Your task to perform on an android device: turn on notifications settings in the gmail app Image 0: 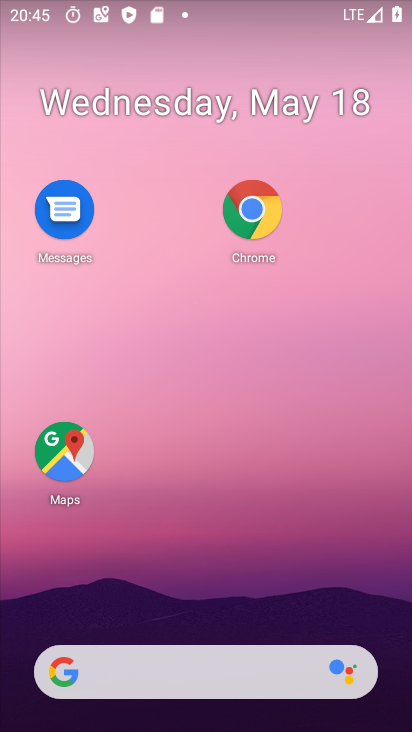
Step 0: drag from (151, 610) to (224, 0)
Your task to perform on an android device: turn on notifications settings in the gmail app Image 1: 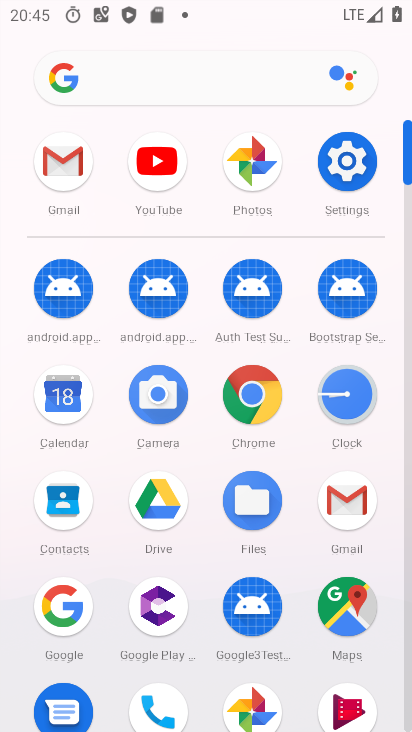
Step 1: click (353, 506)
Your task to perform on an android device: turn on notifications settings in the gmail app Image 2: 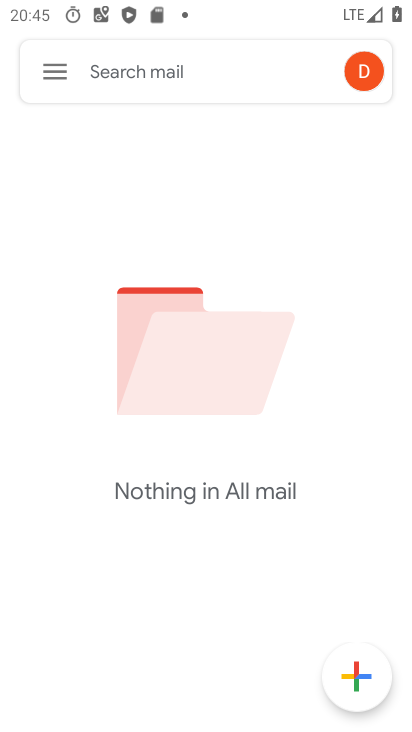
Step 2: click (52, 88)
Your task to perform on an android device: turn on notifications settings in the gmail app Image 3: 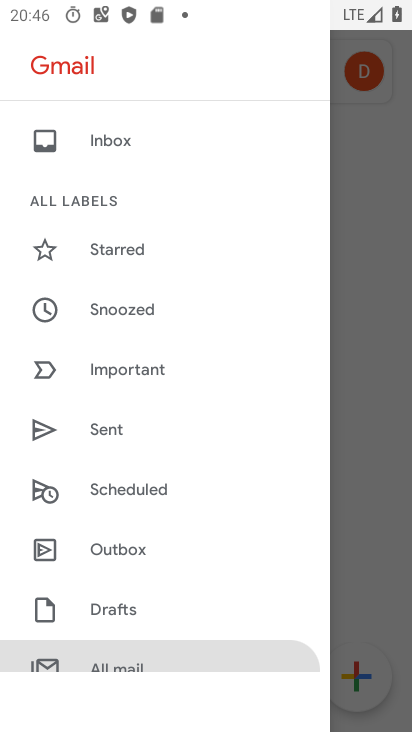
Step 3: drag from (61, 628) to (207, 107)
Your task to perform on an android device: turn on notifications settings in the gmail app Image 4: 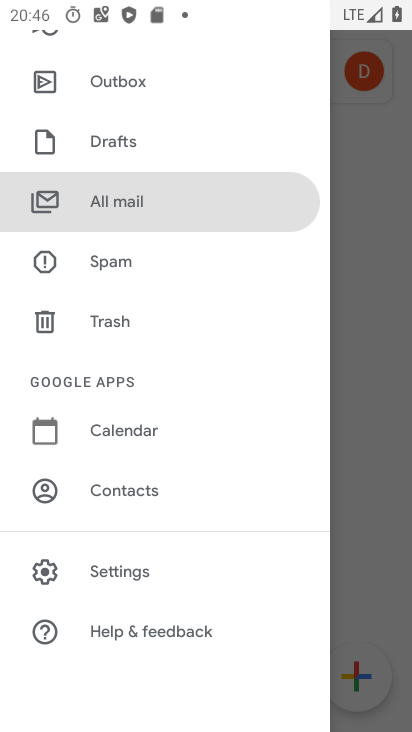
Step 4: click (107, 573)
Your task to perform on an android device: turn on notifications settings in the gmail app Image 5: 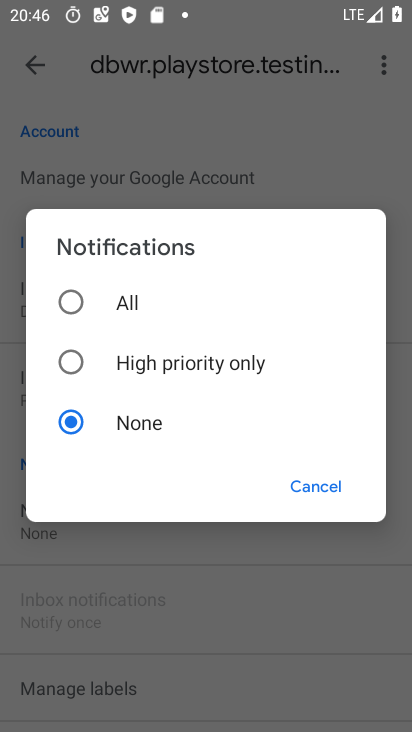
Step 5: click (167, 331)
Your task to perform on an android device: turn on notifications settings in the gmail app Image 6: 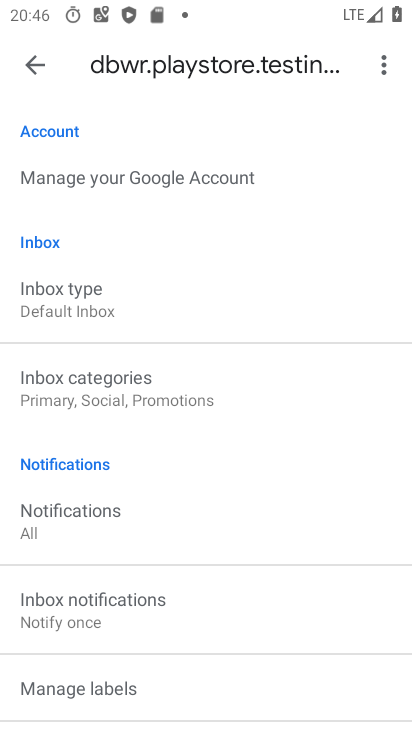
Step 6: task complete